Your task to perform on an android device: all mails in gmail Image 0: 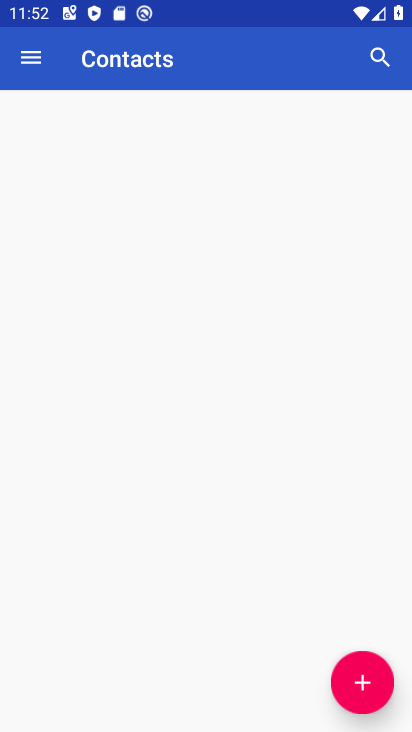
Step 0: press home button
Your task to perform on an android device: all mails in gmail Image 1: 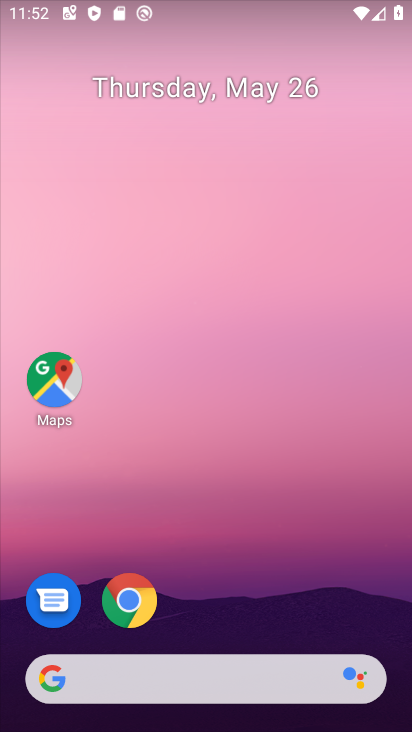
Step 1: click (235, 632)
Your task to perform on an android device: all mails in gmail Image 2: 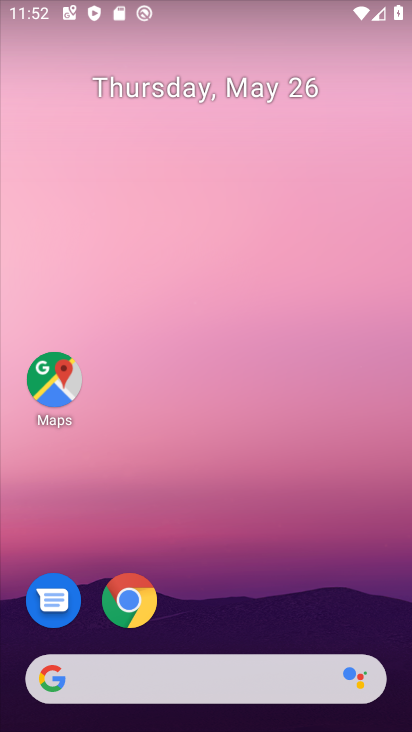
Step 2: drag from (235, 632) to (161, 152)
Your task to perform on an android device: all mails in gmail Image 3: 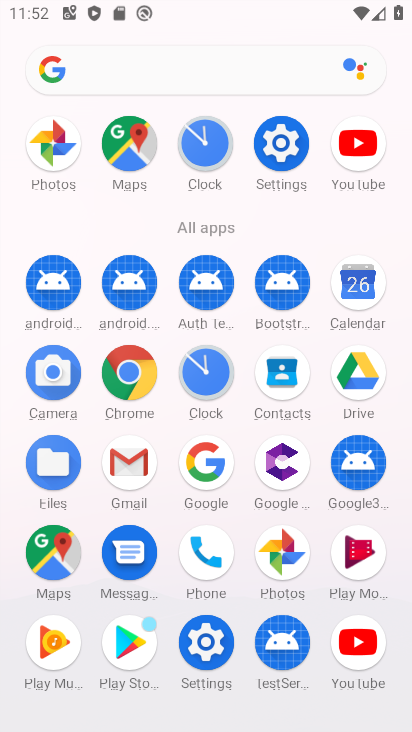
Step 3: click (130, 474)
Your task to perform on an android device: all mails in gmail Image 4: 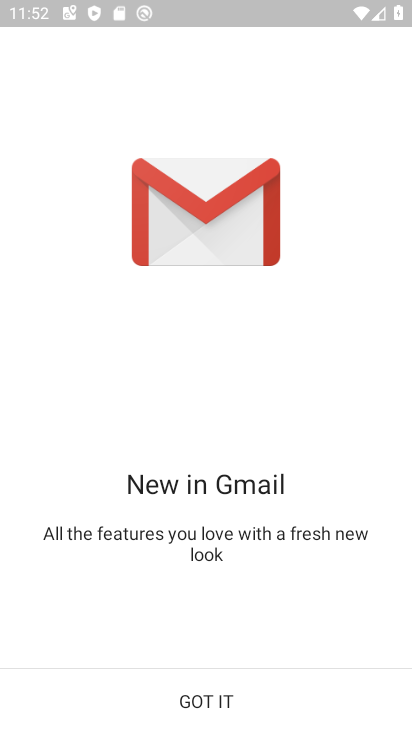
Step 4: click (121, 725)
Your task to perform on an android device: all mails in gmail Image 5: 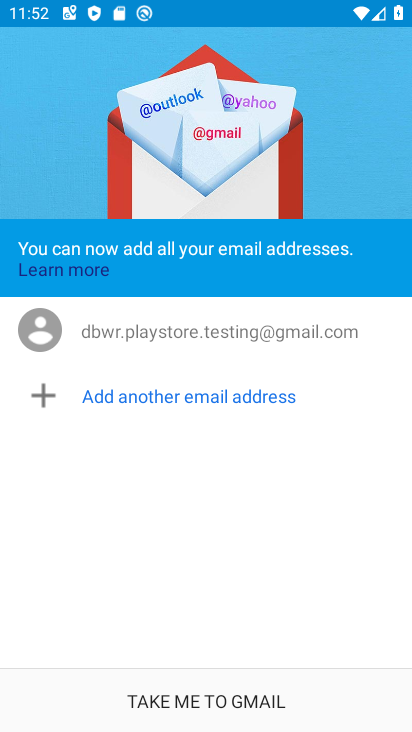
Step 5: click (167, 699)
Your task to perform on an android device: all mails in gmail Image 6: 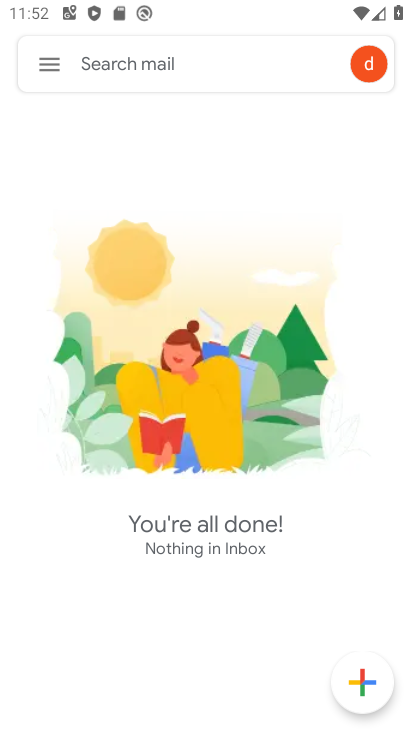
Step 6: task complete